Your task to perform on an android device: Go to ESPN.com Image 0: 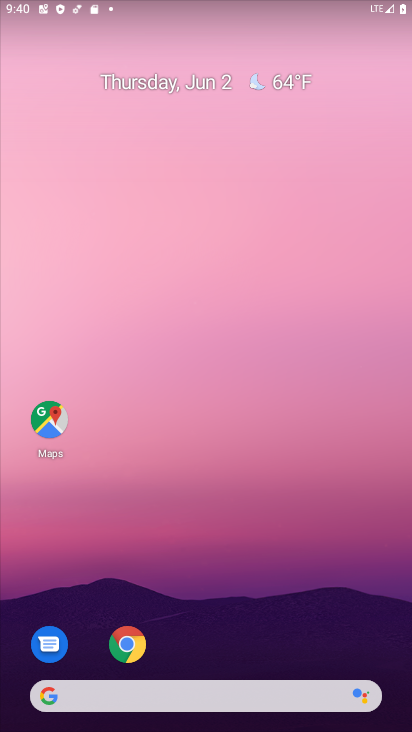
Step 0: press home button
Your task to perform on an android device: Go to ESPN.com Image 1: 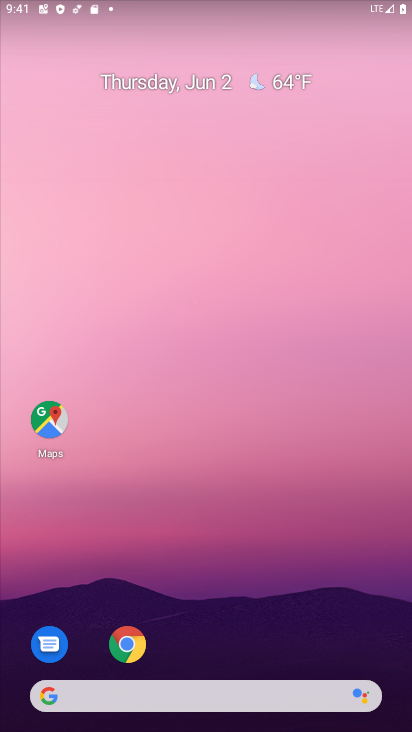
Step 1: click (122, 638)
Your task to perform on an android device: Go to ESPN.com Image 2: 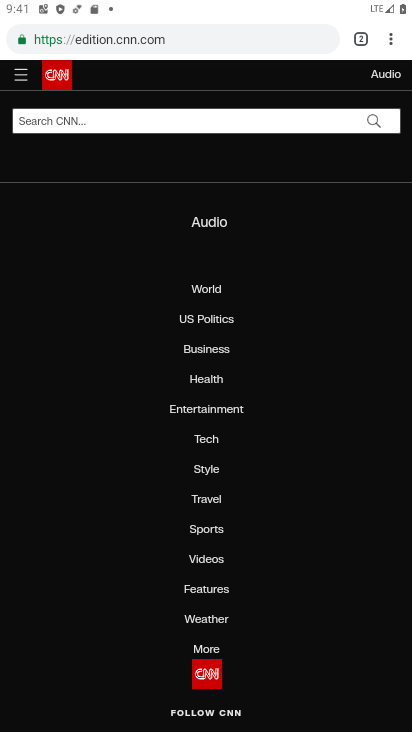
Step 2: click (207, 44)
Your task to perform on an android device: Go to ESPN.com Image 3: 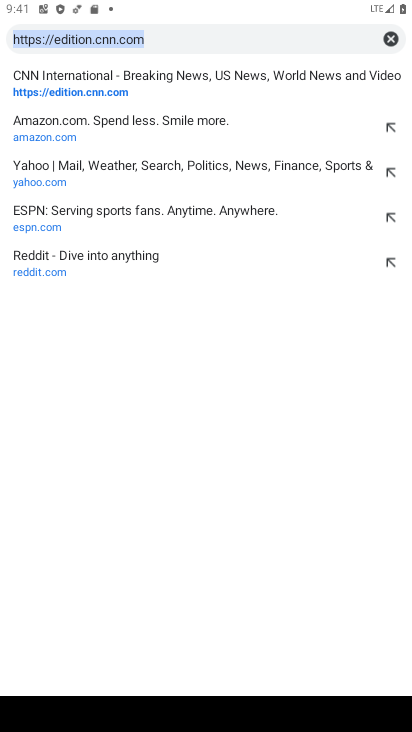
Step 3: type " ESPN.com"
Your task to perform on an android device: Go to ESPN.com Image 4: 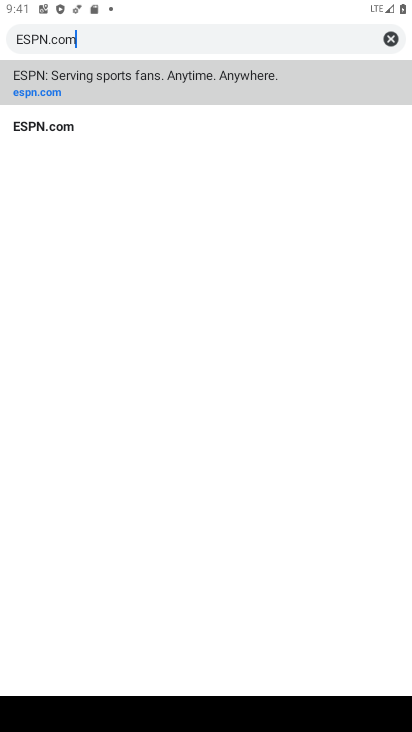
Step 4: click (73, 73)
Your task to perform on an android device: Go to ESPN.com Image 5: 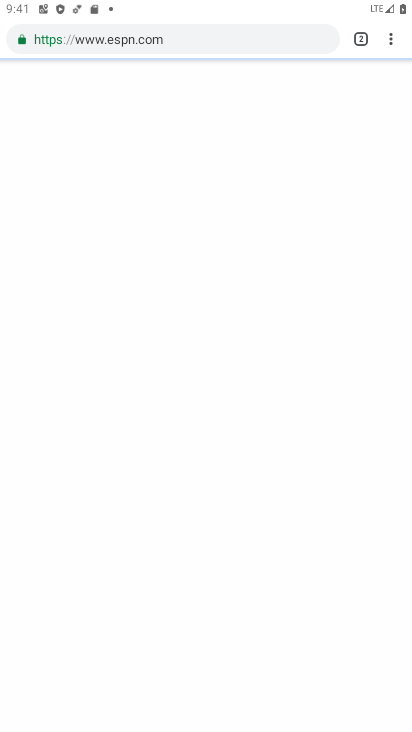
Step 5: task complete